Your task to perform on an android device: Open Amazon Image 0: 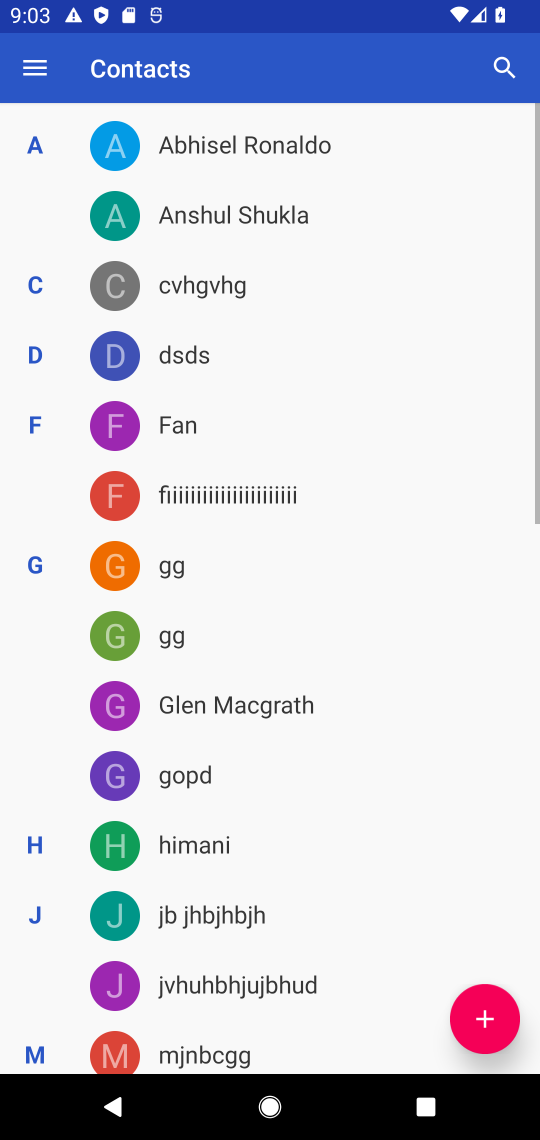
Step 0: press home button
Your task to perform on an android device: Open Amazon Image 1: 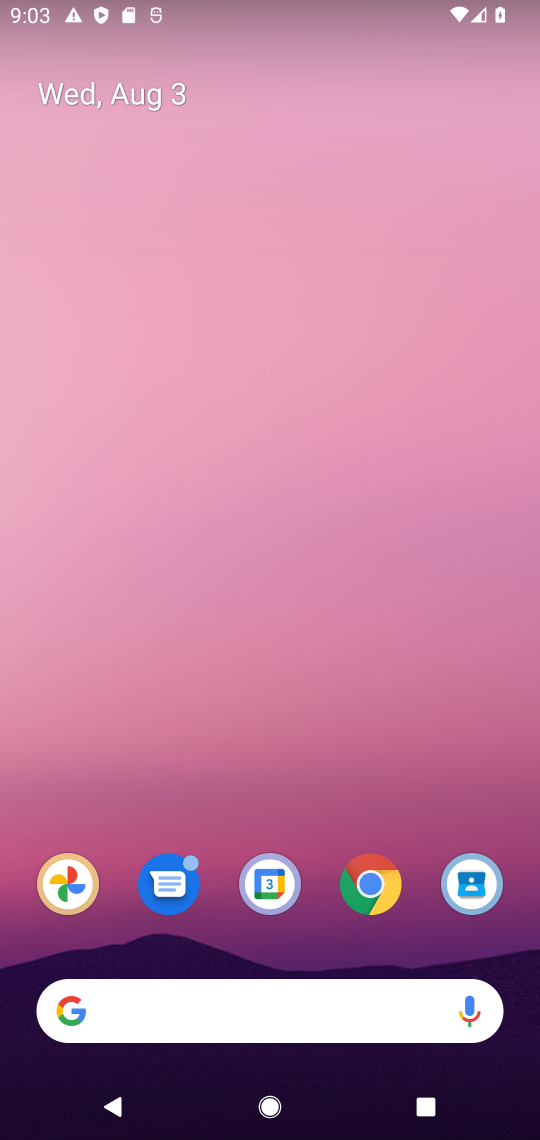
Step 1: click (391, 879)
Your task to perform on an android device: Open Amazon Image 2: 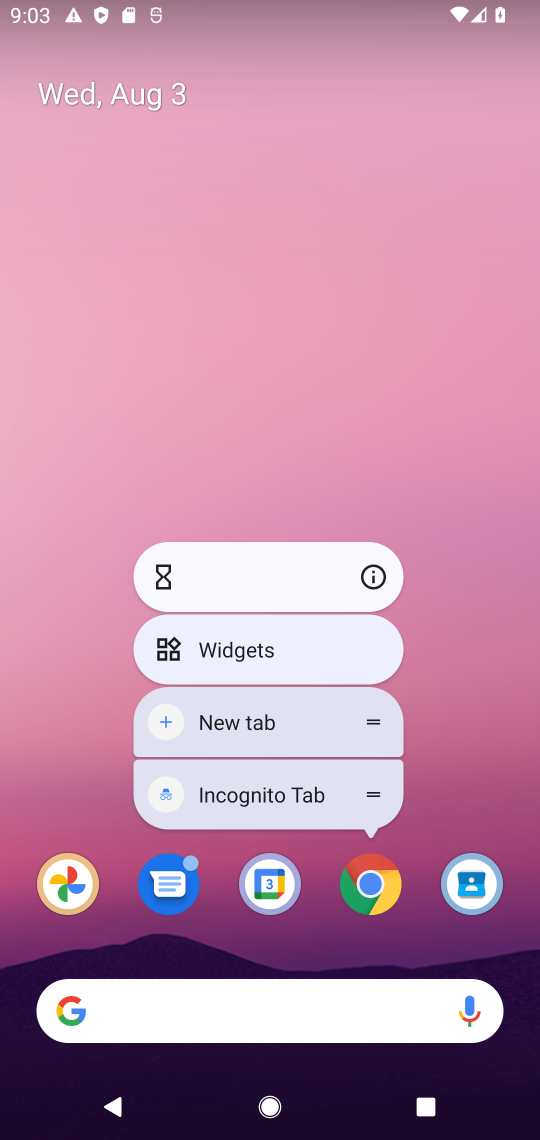
Step 2: click (391, 879)
Your task to perform on an android device: Open Amazon Image 3: 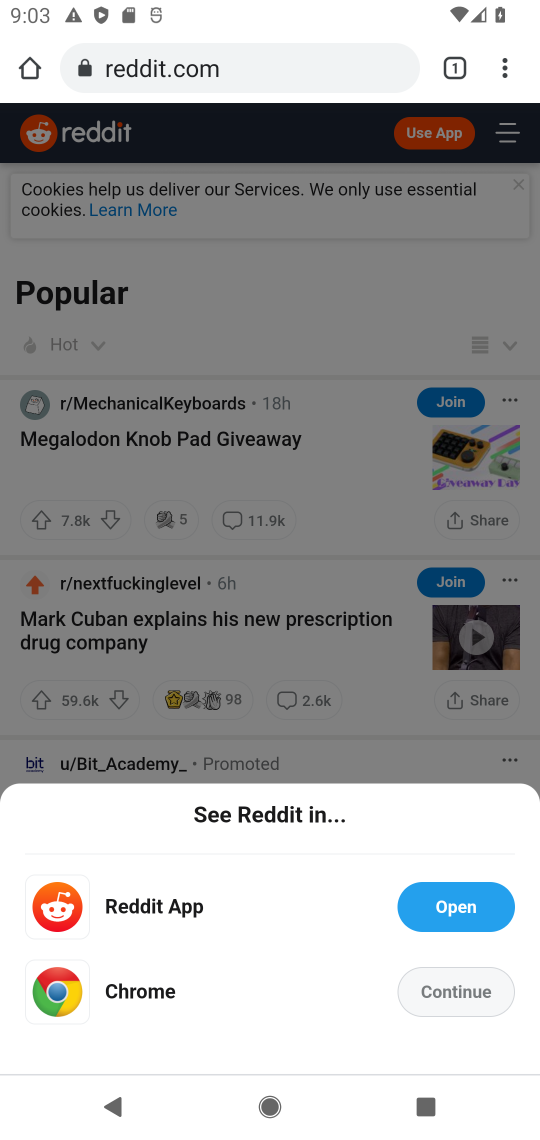
Step 3: click (327, 69)
Your task to perform on an android device: Open Amazon Image 4: 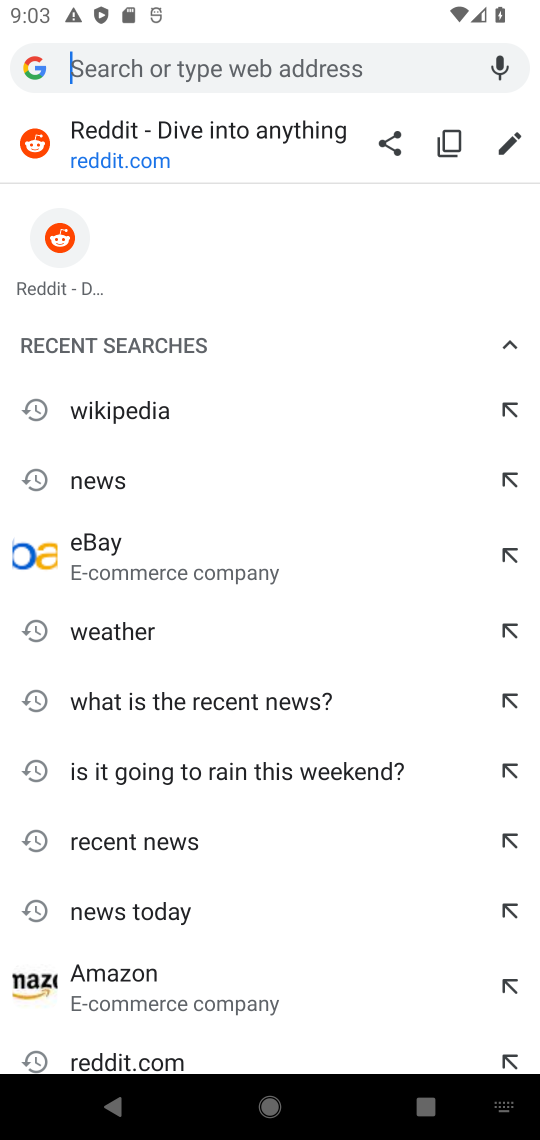
Step 4: type "Amazon"
Your task to perform on an android device: Open Amazon Image 5: 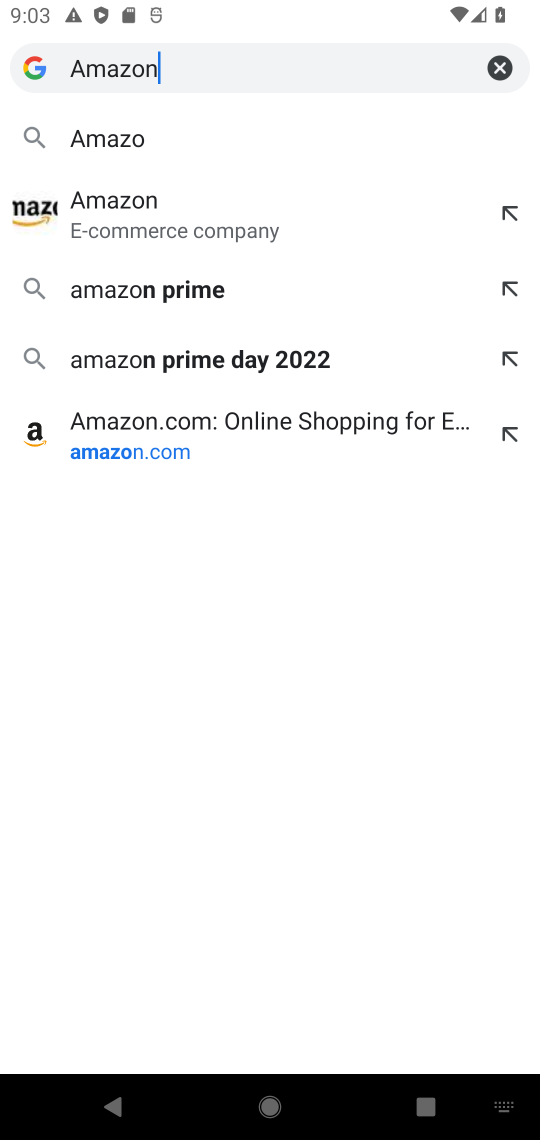
Step 5: type ""
Your task to perform on an android device: Open Amazon Image 6: 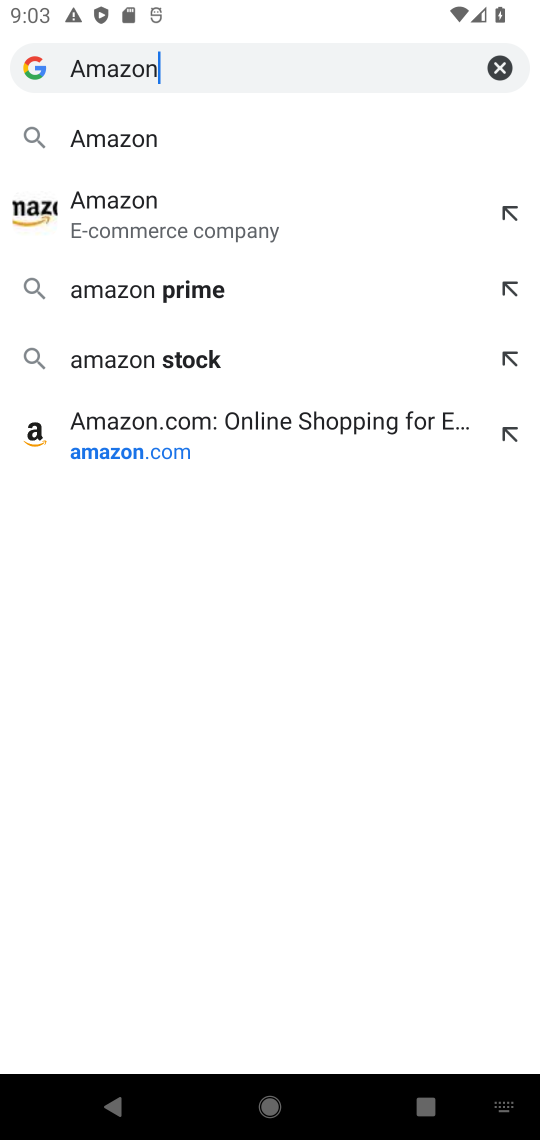
Step 6: click (82, 207)
Your task to perform on an android device: Open Amazon Image 7: 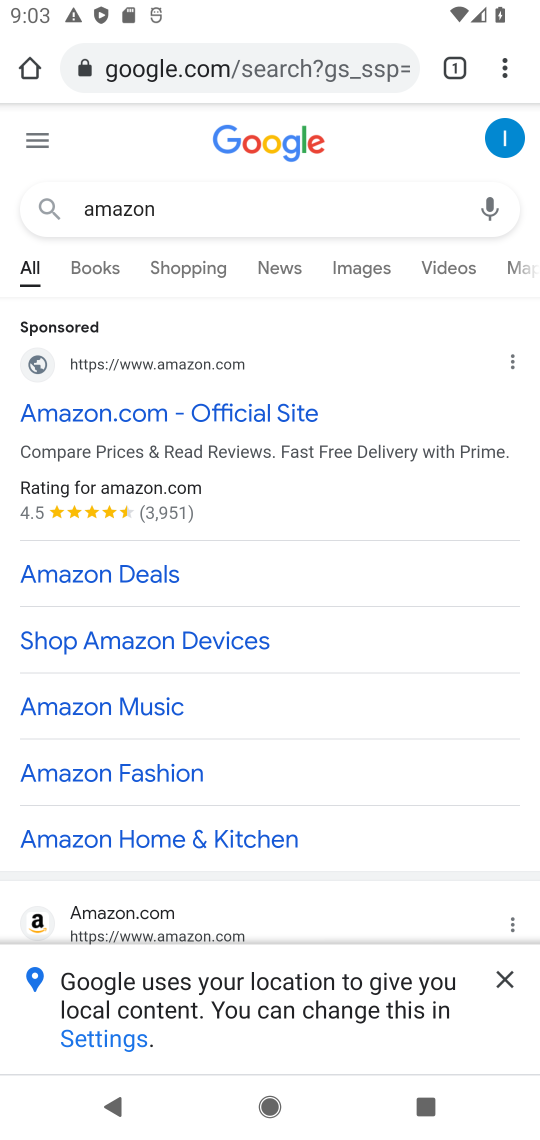
Step 7: click (135, 416)
Your task to perform on an android device: Open Amazon Image 8: 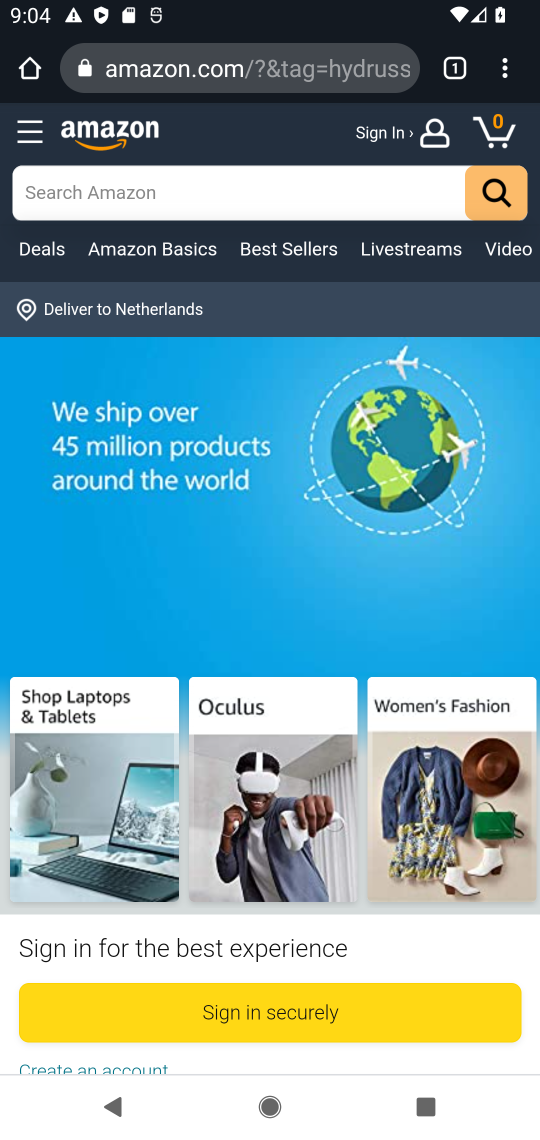
Step 8: task complete